Your task to perform on an android device: open wifi settings Image 0: 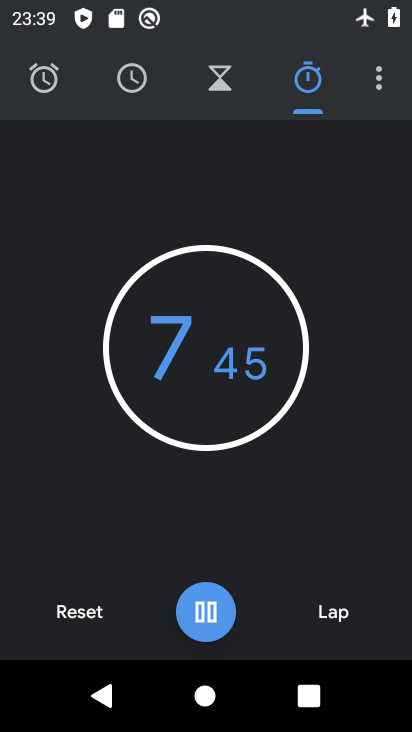
Step 0: press home button
Your task to perform on an android device: open wifi settings Image 1: 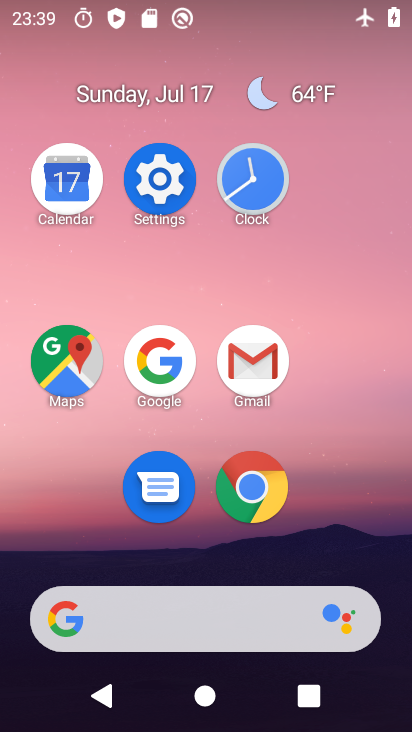
Step 1: click (156, 180)
Your task to perform on an android device: open wifi settings Image 2: 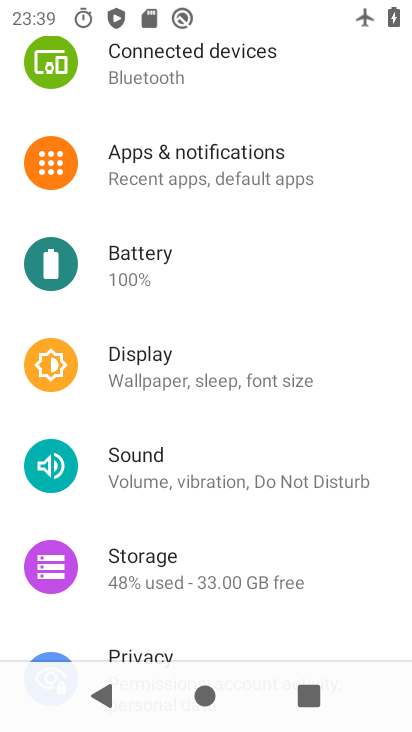
Step 2: drag from (305, 107) to (357, 471)
Your task to perform on an android device: open wifi settings Image 3: 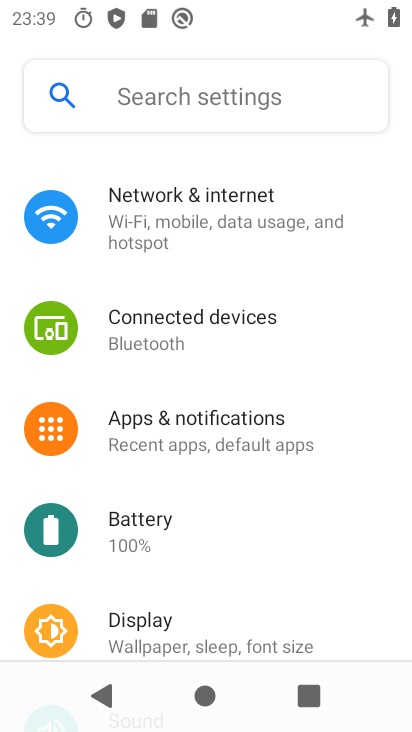
Step 3: click (267, 241)
Your task to perform on an android device: open wifi settings Image 4: 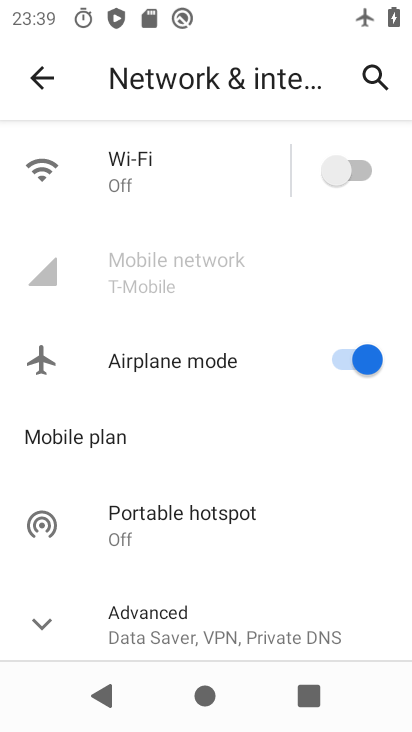
Step 4: click (180, 167)
Your task to perform on an android device: open wifi settings Image 5: 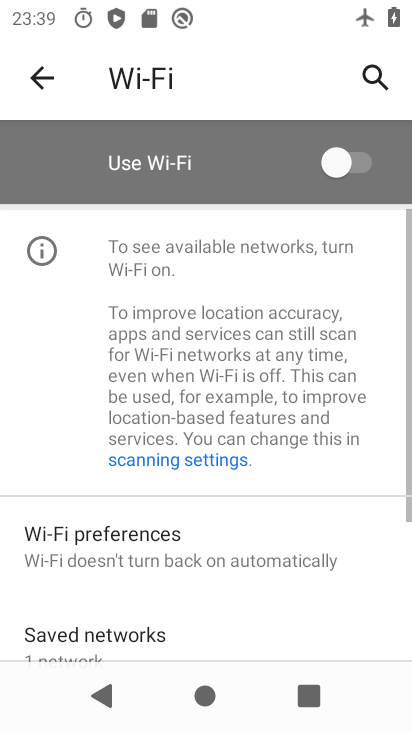
Step 5: click (344, 166)
Your task to perform on an android device: open wifi settings Image 6: 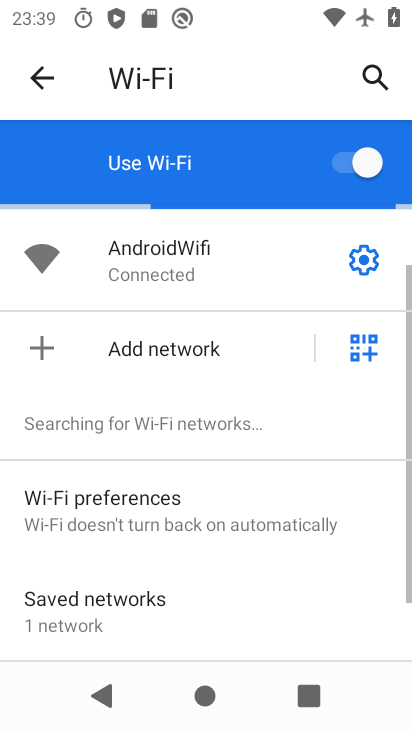
Step 6: click (375, 250)
Your task to perform on an android device: open wifi settings Image 7: 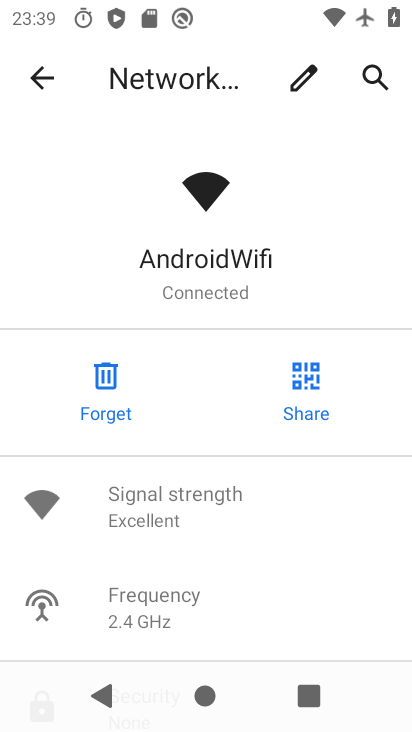
Step 7: task complete